Your task to perform on an android device: toggle priority inbox in the gmail app Image 0: 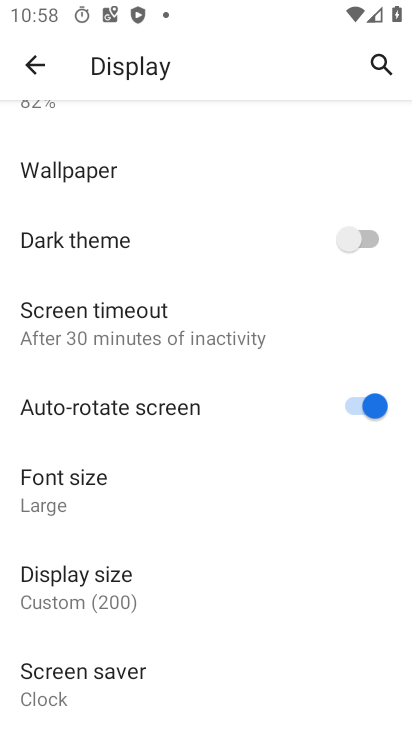
Step 0: press back button
Your task to perform on an android device: toggle priority inbox in the gmail app Image 1: 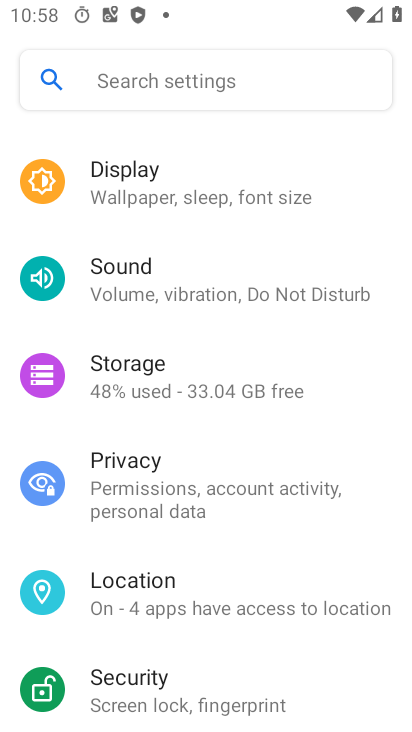
Step 1: press back button
Your task to perform on an android device: toggle priority inbox in the gmail app Image 2: 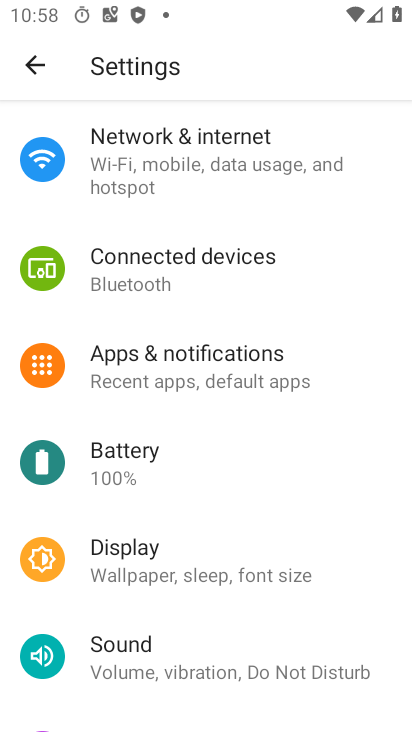
Step 2: press back button
Your task to perform on an android device: toggle priority inbox in the gmail app Image 3: 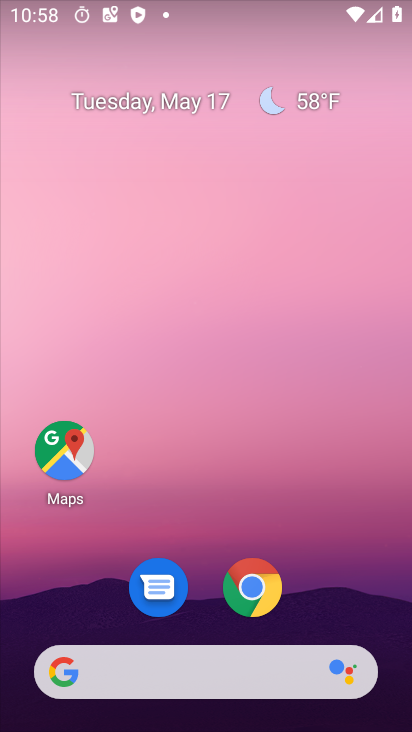
Step 3: drag from (320, 609) to (141, 108)
Your task to perform on an android device: toggle priority inbox in the gmail app Image 4: 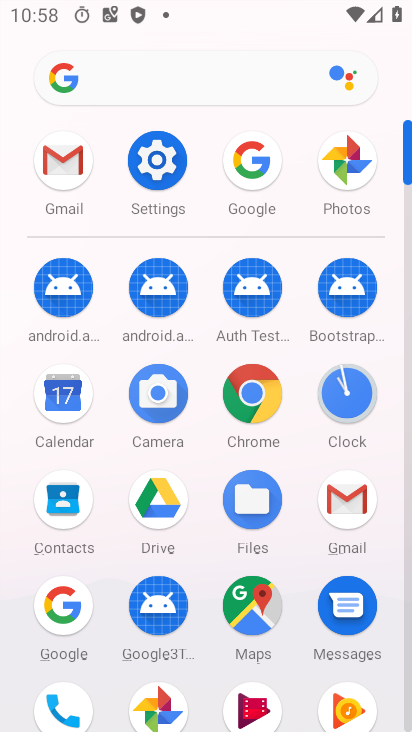
Step 4: click (63, 163)
Your task to perform on an android device: toggle priority inbox in the gmail app Image 5: 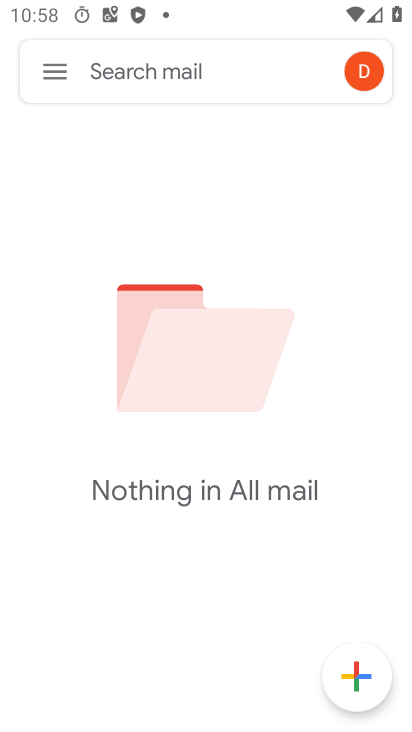
Step 5: click (60, 70)
Your task to perform on an android device: toggle priority inbox in the gmail app Image 6: 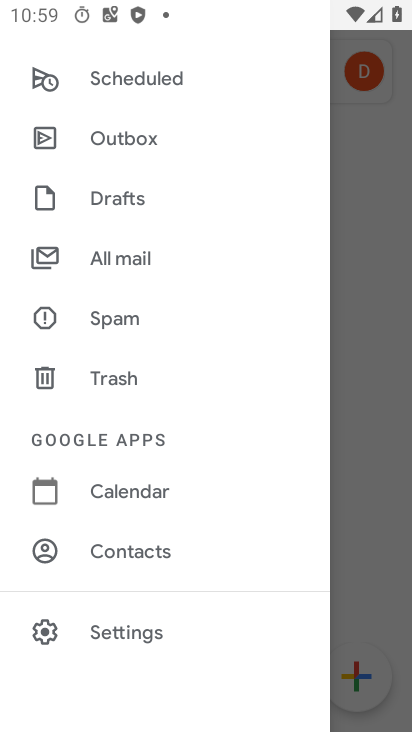
Step 6: click (118, 632)
Your task to perform on an android device: toggle priority inbox in the gmail app Image 7: 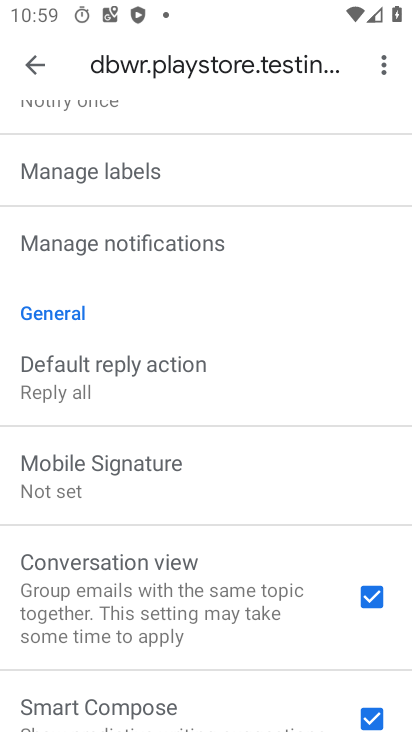
Step 7: drag from (171, 310) to (157, 414)
Your task to perform on an android device: toggle priority inbox in the gmail app Image 8: 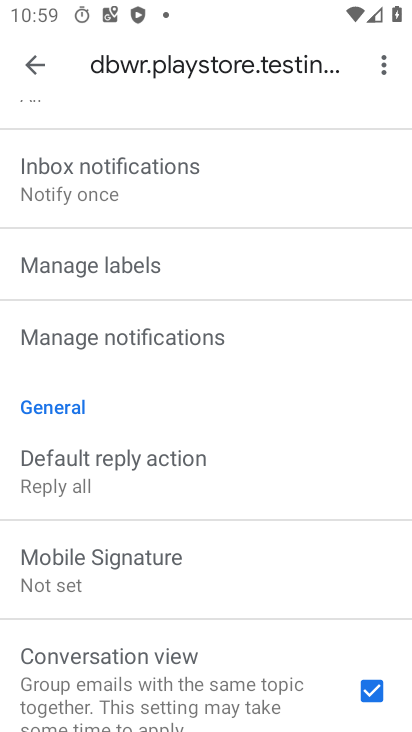
Step 8: drag from (166, 306) to (182, 434)
Your task to perform on an android device: toggle priority inbox in the gmail app Image 9: 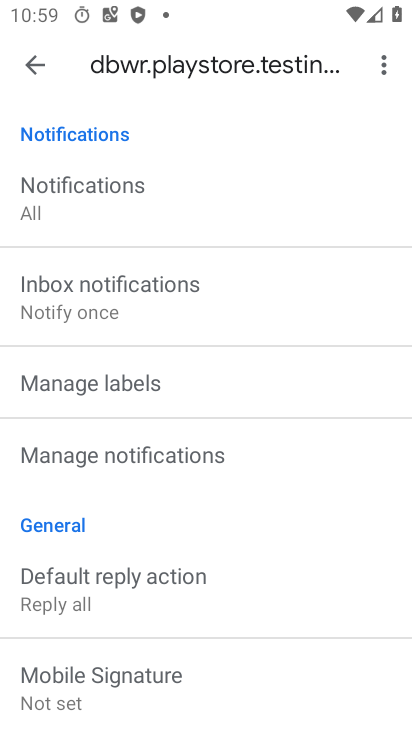
Step 9: drag from (180, 261) to (184, 411)
Your task to perform on an android device: toggle priority inbox in the gmail app Image 10: 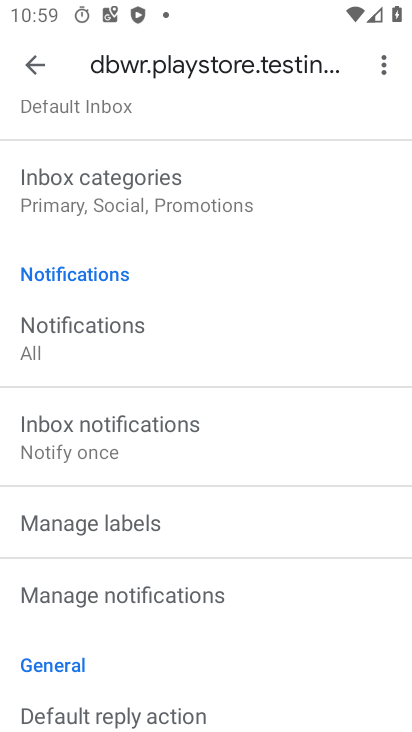
Step 10: drag from (160, 238) to (177, 370)
Your task to perform on an android device: toggle priority inbox in the gmail app Image 11: 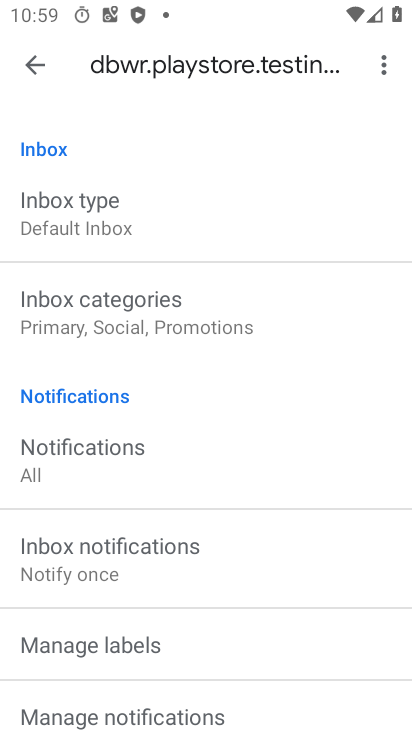
Step 11: click (100, 232)
Your task to perform on an android device: toggle priority inbox in the gmail app Image 12: 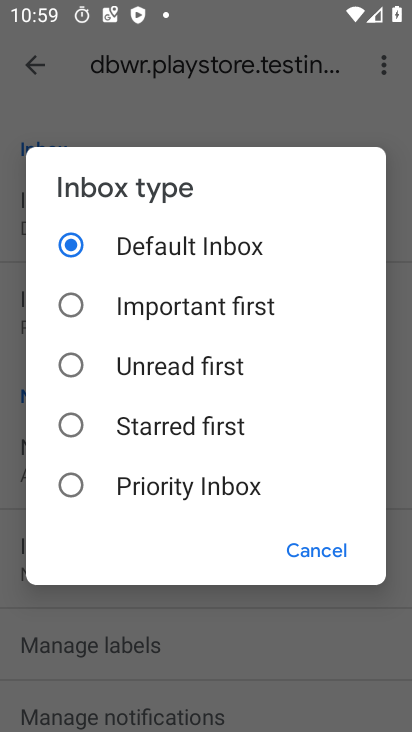
Step 12: click (67, 480)
Your task to perform on an android device: toggle priority inbox in the gmail app Image 13: 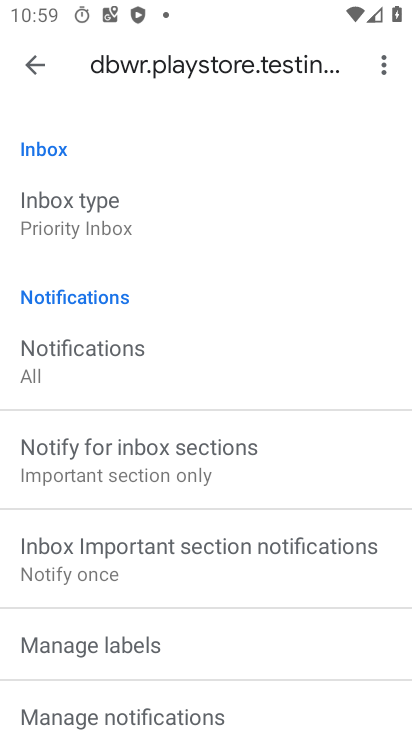
Step 13: task complete